Your task to perform on an android device: open app "eBay: The shopping marketplace" Image 0: 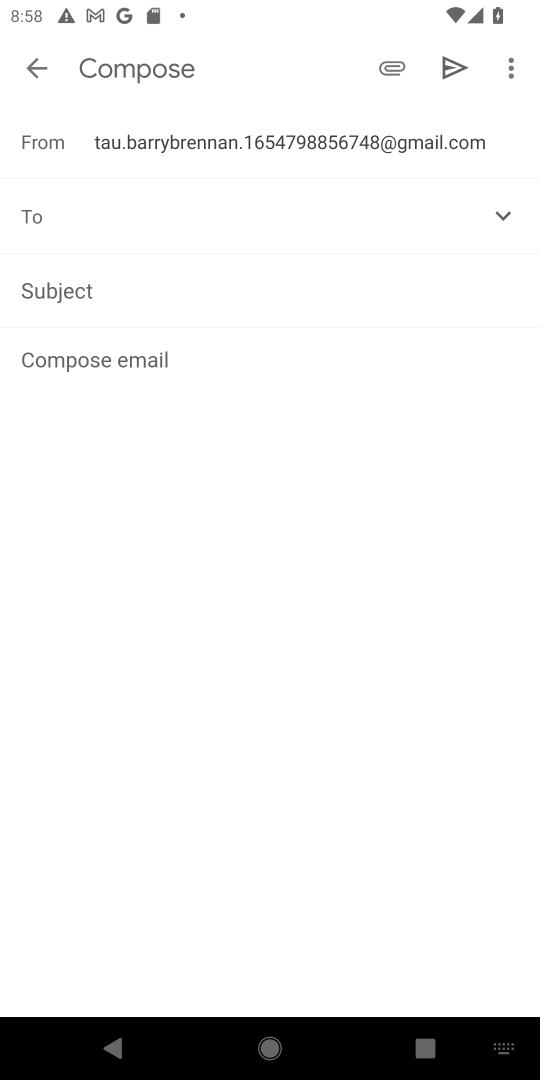
Step 0: press home button
Your task to perform on an android device: open app "eBay: The shopping marketplace" Image 1: 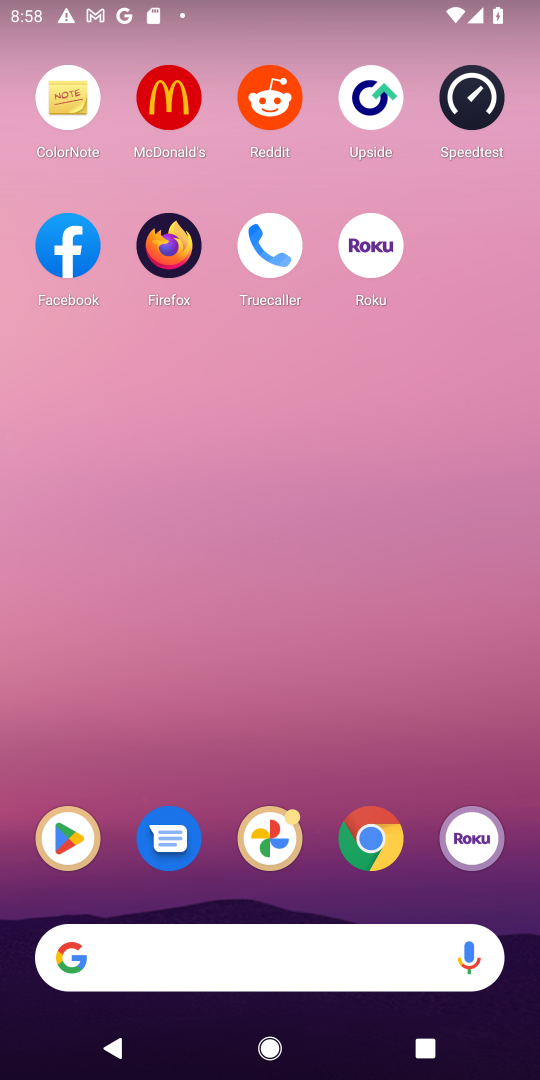
Step 1: drag from (310, 742) to (339, 233)
Your task to perform on an android device: open app "eBay: The shopping marketplace" Image 2: 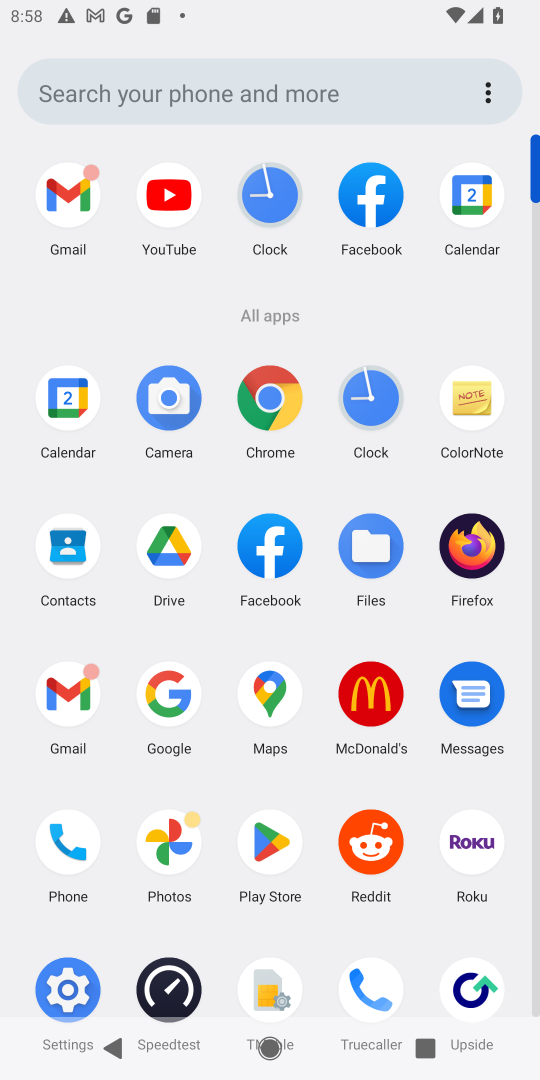
Step 2: click (266, 841)
Your task to perform on an android device: open app "eBay: The shopping marketplace" Image 3: 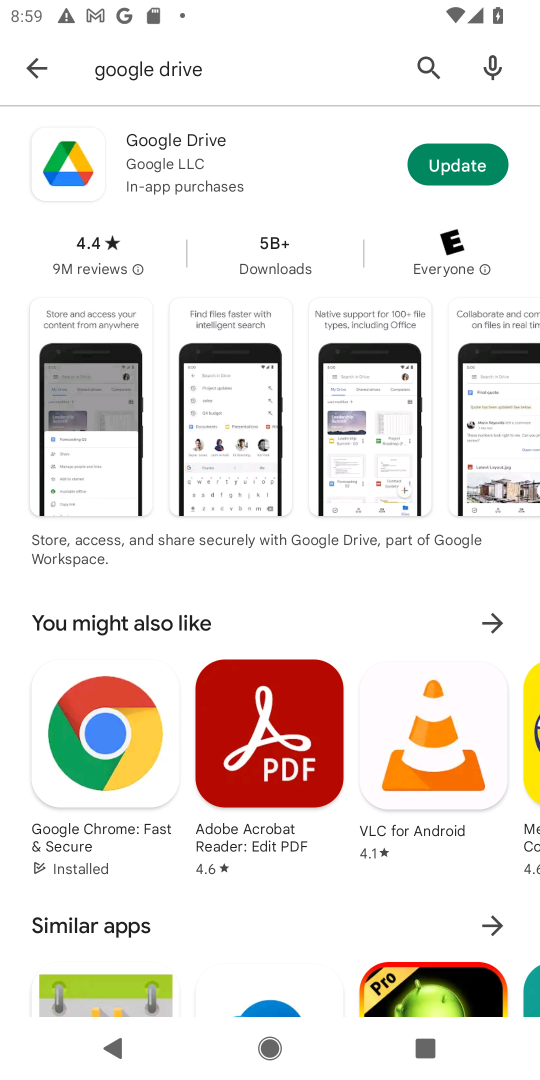
Step 3: click (428, 62)
Your task to perform on an android device: open app "eBay: The shopping marketplace" Image 4: 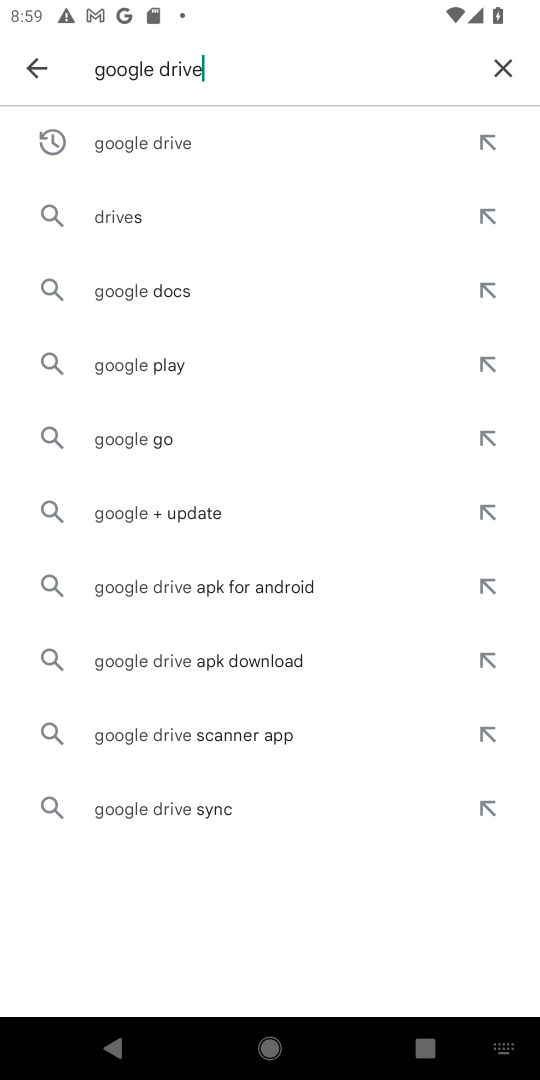
Step 4: click (501, 59)
Your task to perform on an android device: open app "eBay: The shopping marketplace" Image 5: 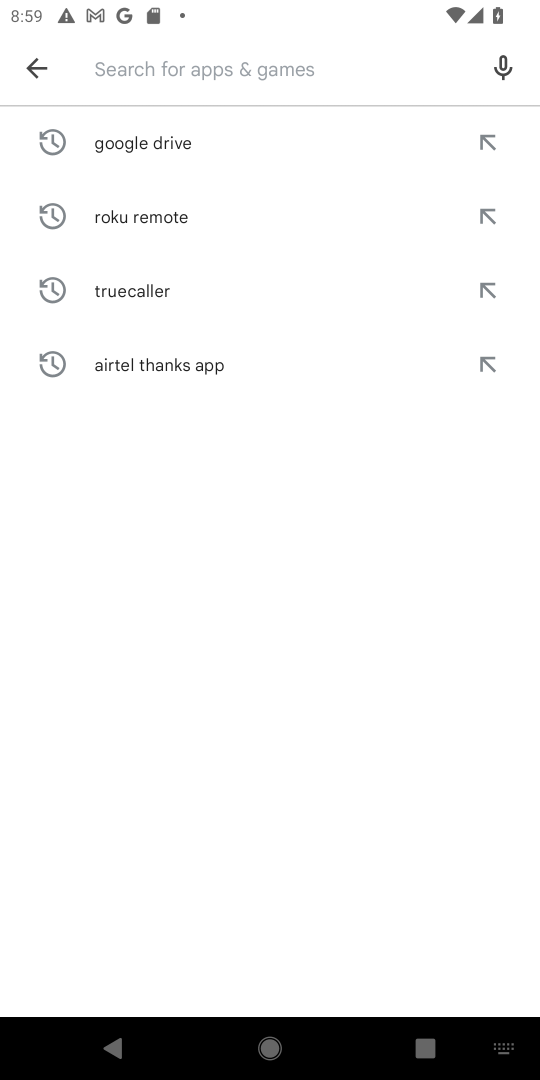
Step 5: click (341, 90)
Your task to perform on an android device: open app "eBay: The shopping marketplace" Image 6: 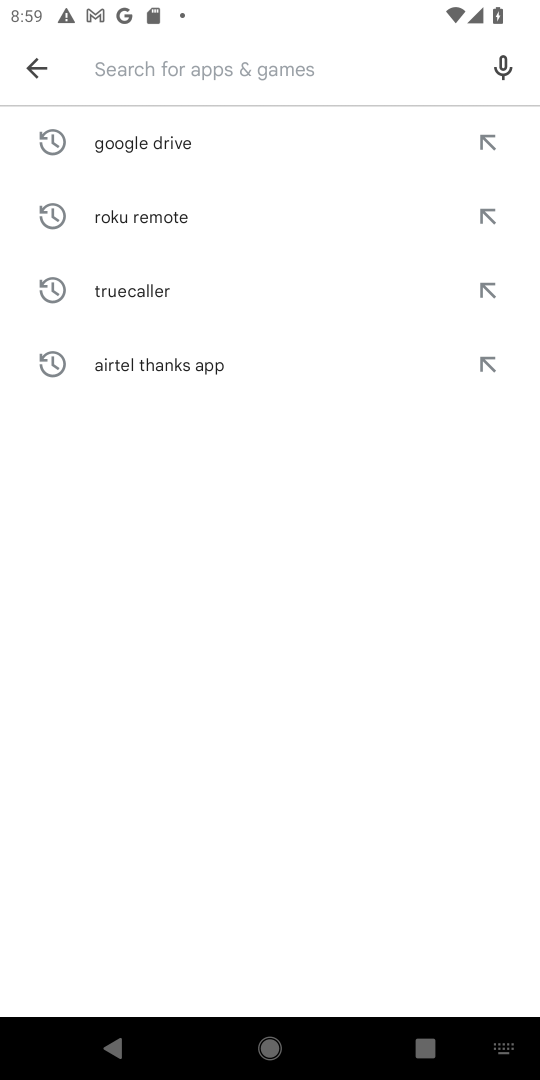
Step 6: type "eBay: The shopping marketplace"
Your task to perform on an android device: open app "eBay: The shopping marketplace" Image 7: 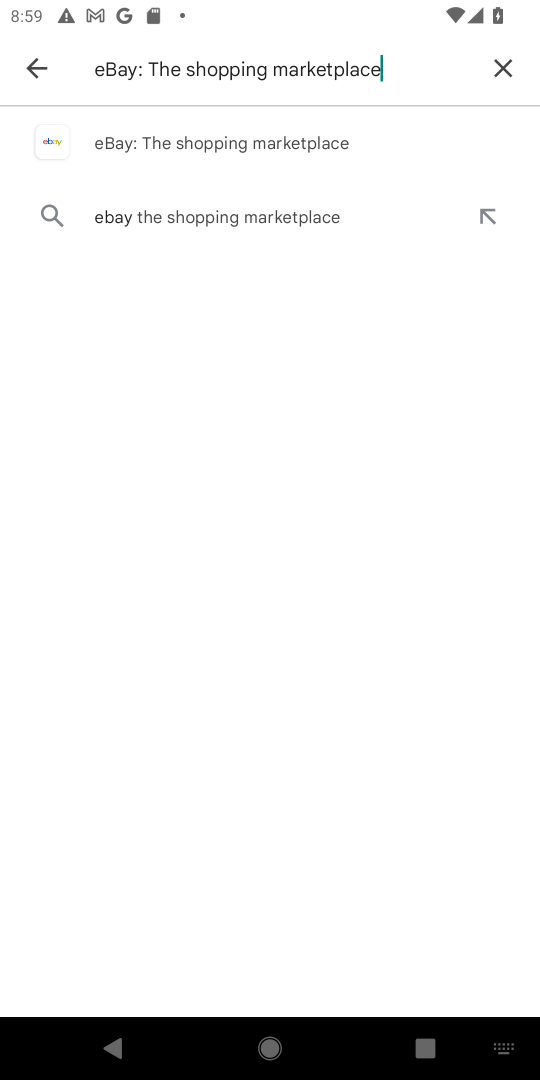
Step 7: click (289, 135)
Your task to perform on an android device: open app "eBay: The shopping marketplace" Image 8: 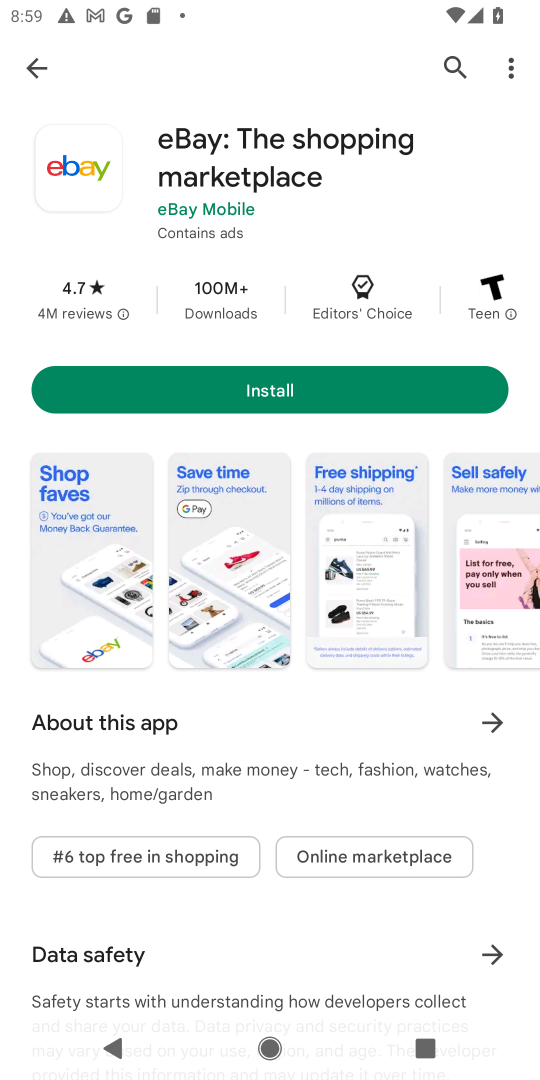
Step 8: task complete